Your task to perform on an android device: Check the news Image 0: 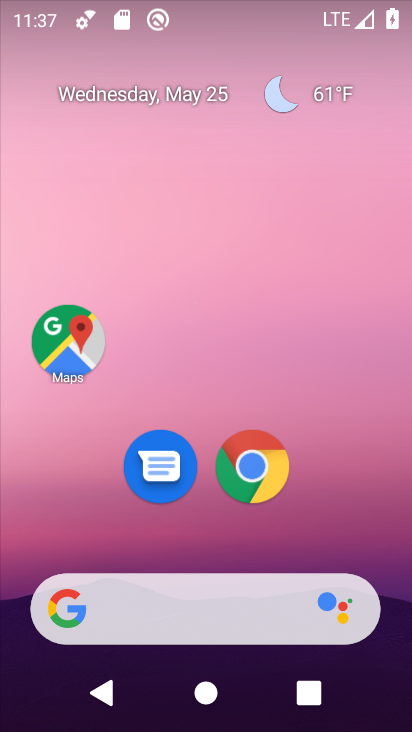
Step 0: drag from (189, 548) to (227, 46)
Your task to perform on an android device: Check the news Image 1: 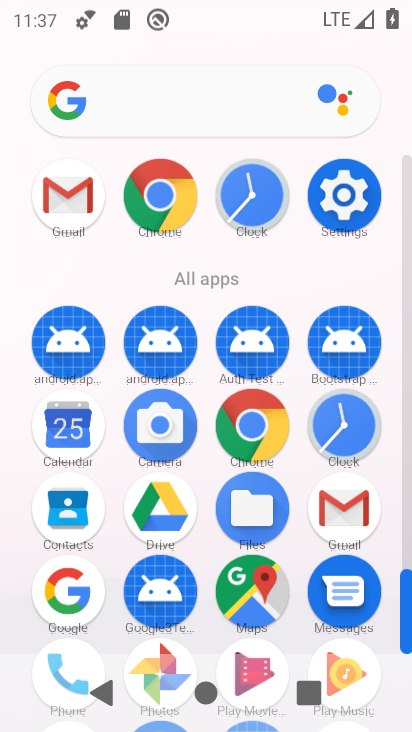
Step 1: click (163, 89)
Your task to perform on an android device: Check the news Image 2: 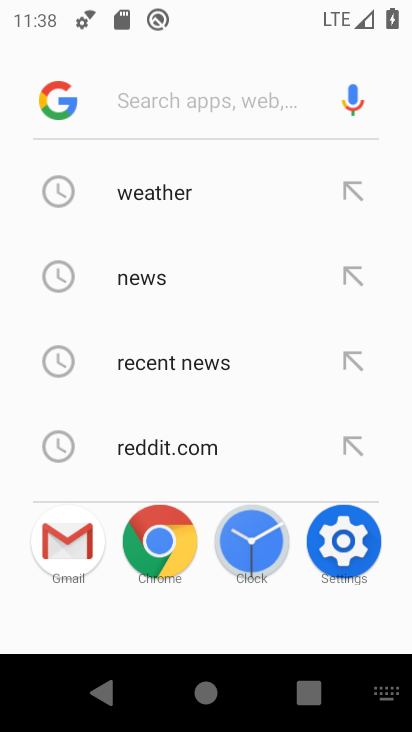
Step 2: type "news"
Your task to perform on an android device: Check the news Image 3: 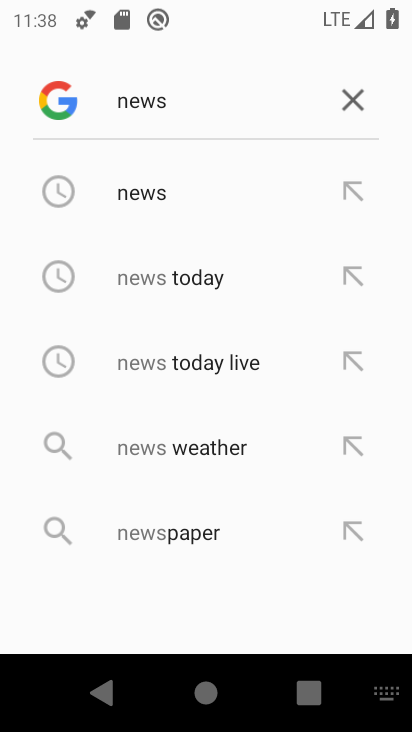
Step 3: click (171, 202)
Your task to perform on an android device: Check the news Image 4: 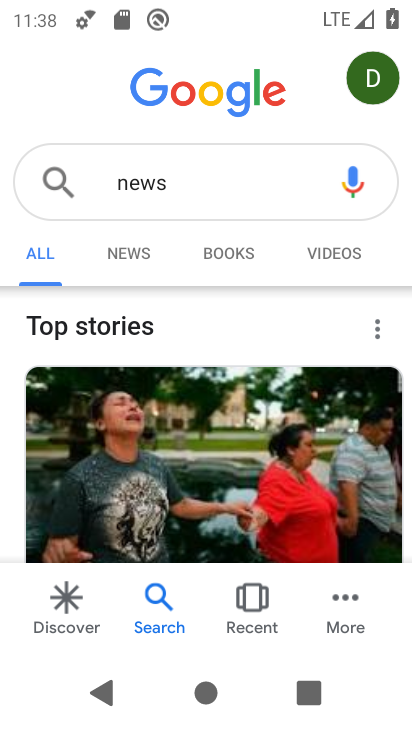
Step 4: task complete